Your task to perform on an android device: refresh tabs in the chrome app Image 0: 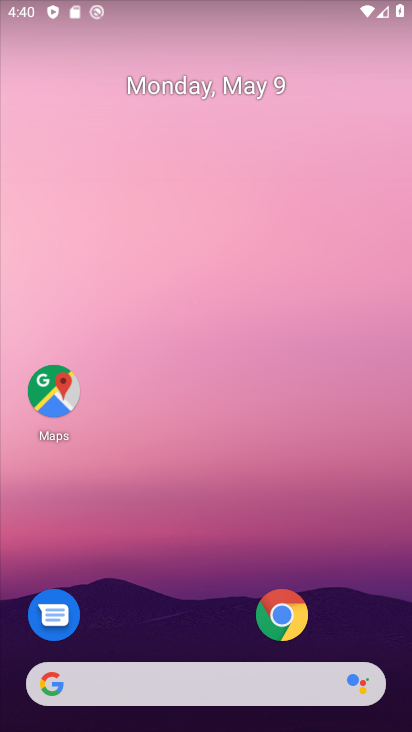
Step 0: click (297, 612)
Your task to perform on an android device: refresh tabs in the chrome app Image 1: 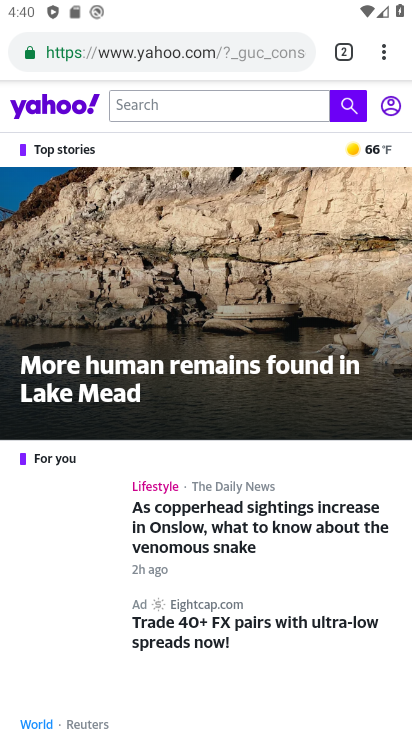
Step 1: click (392, 51)
Your task to perform on an android device: refresh tabs in the chrome app Image 2: 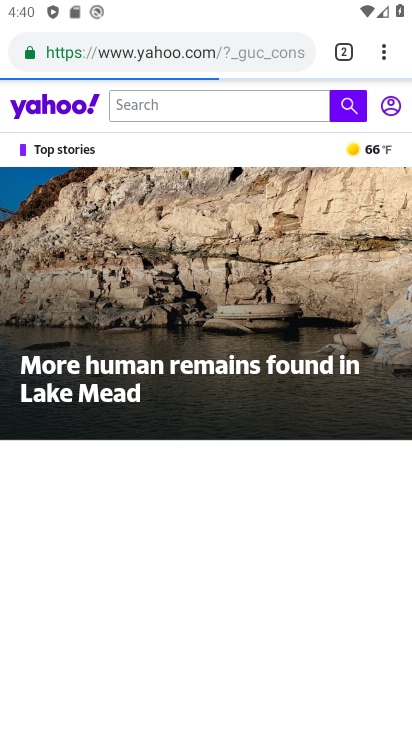
Step 2: click (380, 54)
Your task to perform on an android device: refresh tabs in the chrome app Image 3: 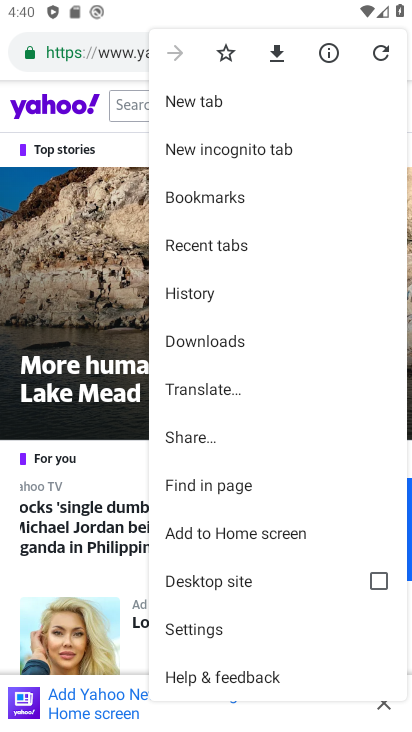
Step 3: click (385, 57)
Your task to perform on an android device: refresh tabs in the chrome app Image 4: 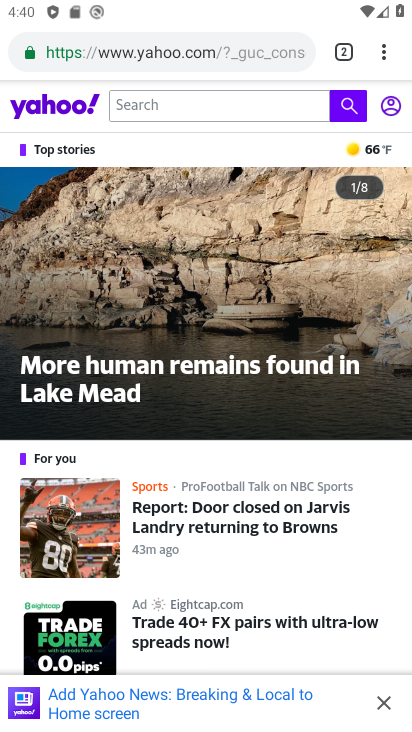
Step 4: task complete